Your task to perform on an android device: What is the speed of sound? Image 0: 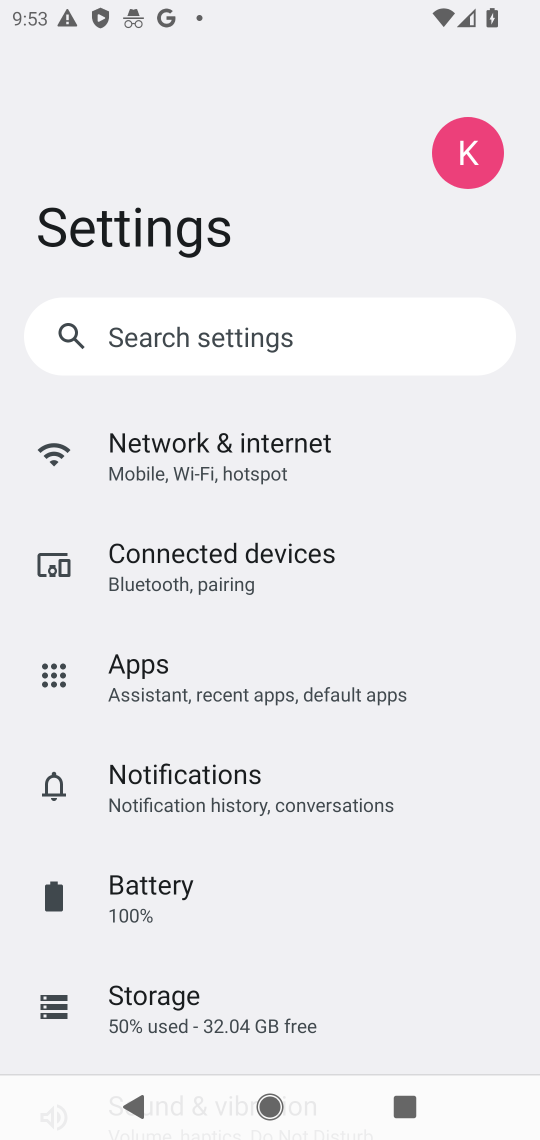
Step 0: press home button
Your task to perform on an android device: What is the speed of sound? Image 1: 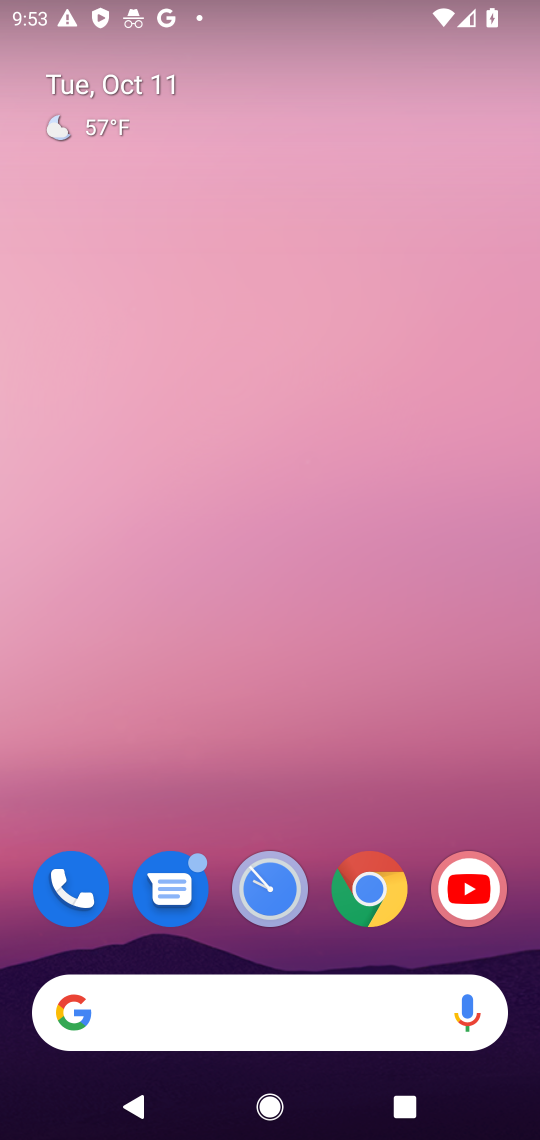
Step 1: click (277, 1020)
Your task to perform on an android device: What is the speed of sound? Image 2: 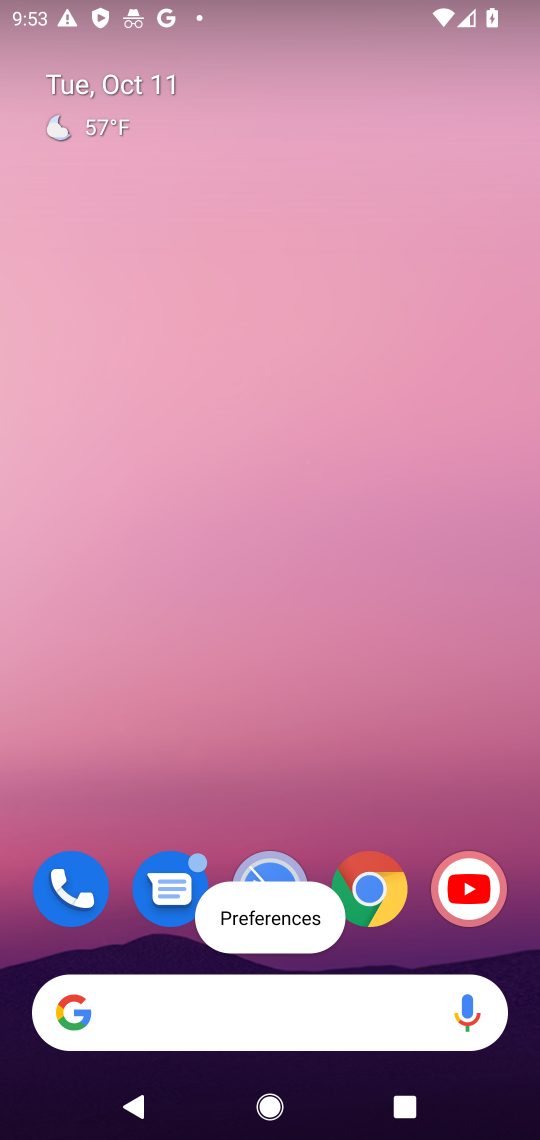
Step 2: click (234, 1037)
Your task to perform on an android device: What is the speed of sound? Image 3: 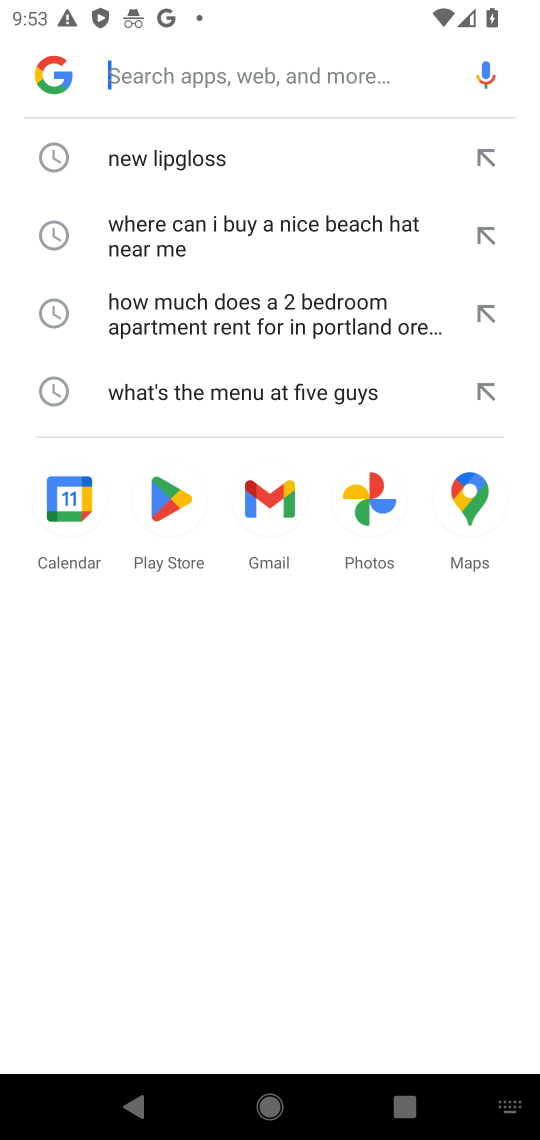
Step 3: click (162, 86)
Your task to perform on an android device: What is the speed of sound? Image 4: 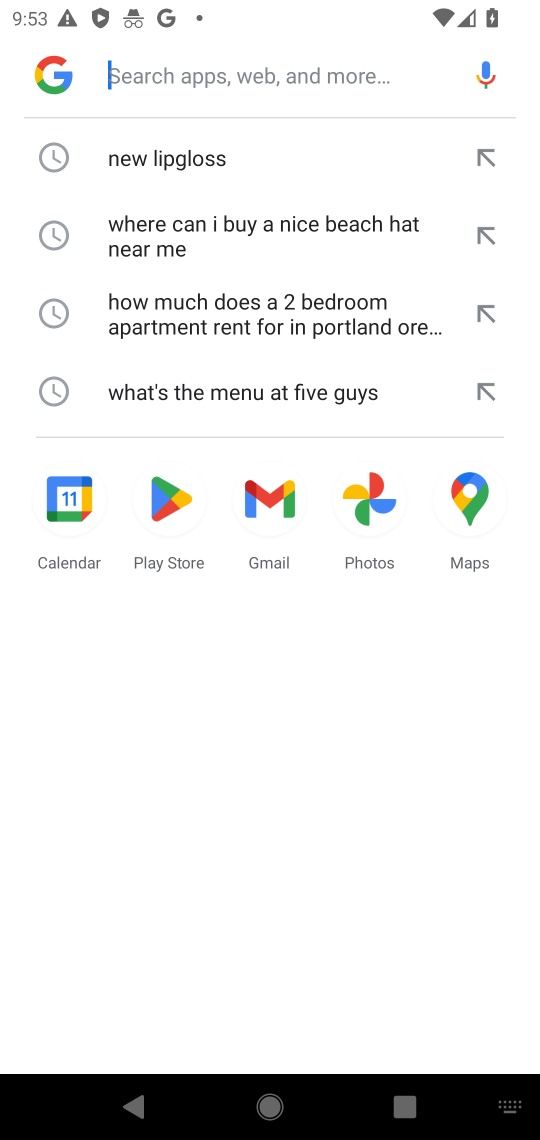
Step 4: type "What is the speed of sound?"
Your task to perform on an android device: What is the speed of sound? Image 5: 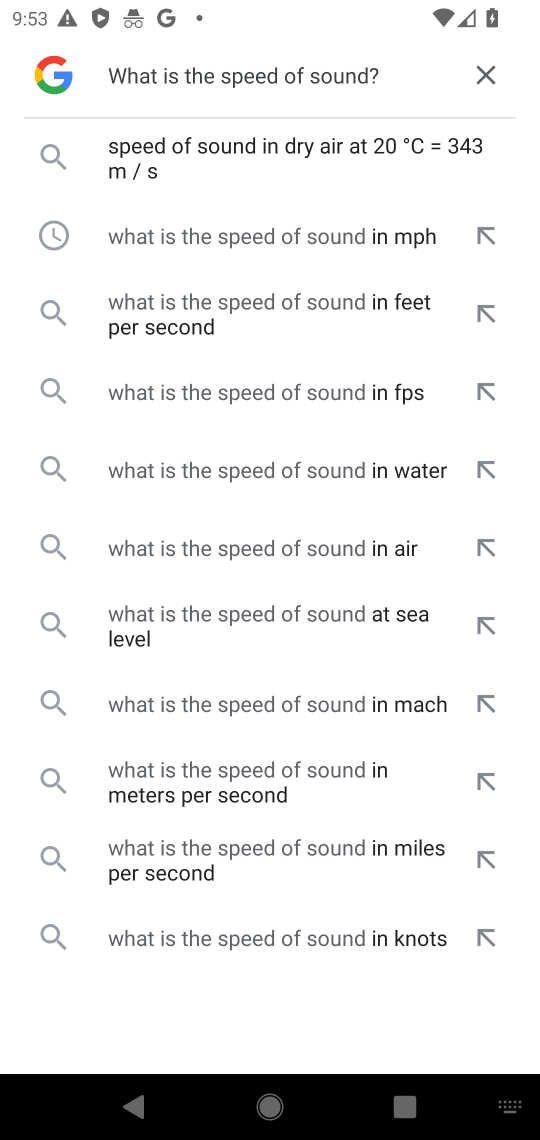
Step 5: click (259, 242)
Your task to perform on an android device: What is the speed of sound? Image 6: 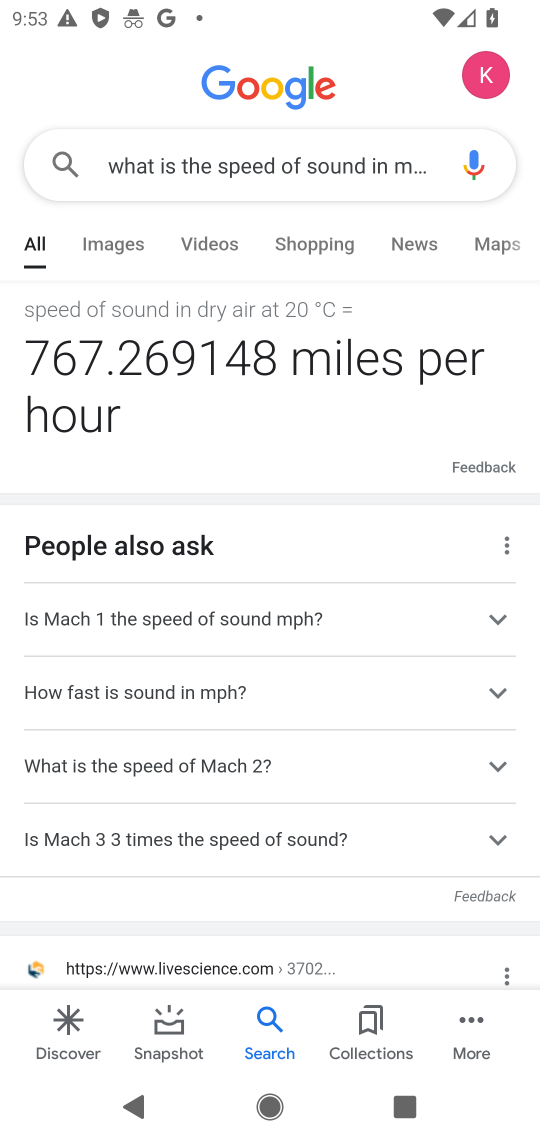
Step 6: task complete